Your task to perform on an android device: turn off airplane mode Image 0: 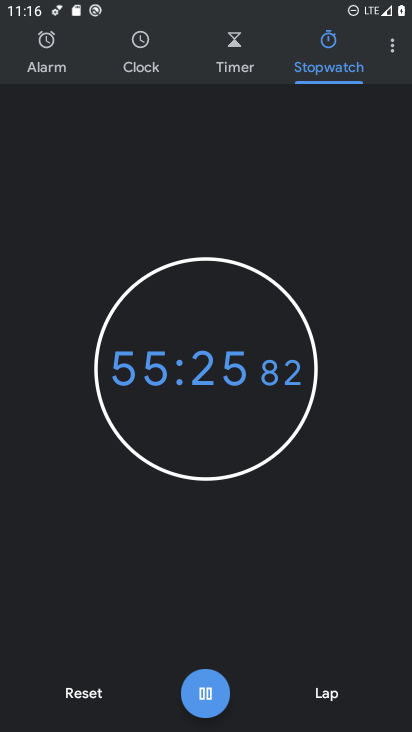
Step 0: press home button
Your task to perform on an android device: turn off airplane mode Image 1: 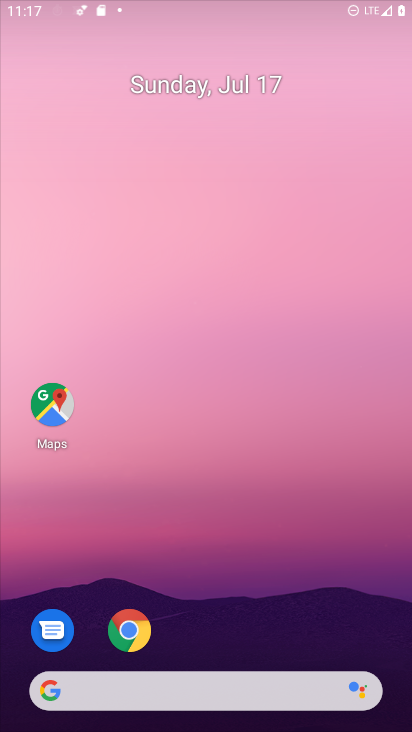
Step 1: drag from (153, 666) to (131, 41)
Your task to perform on an android device: turn off airplane mode Image 2: 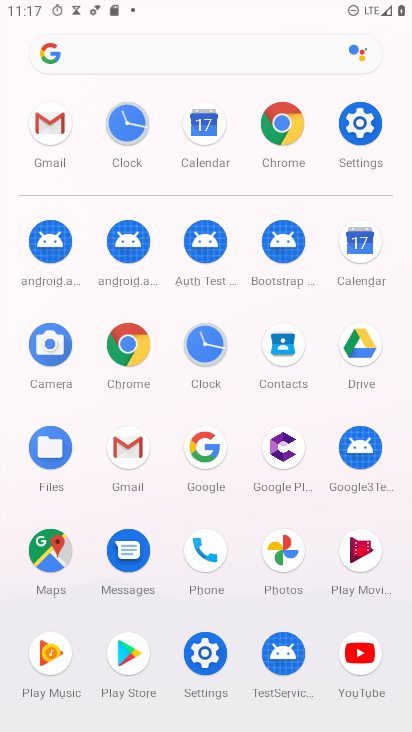
Step 2: click (369, 118)
Your task to perform on an android device: turn off airplane mode Image 3: 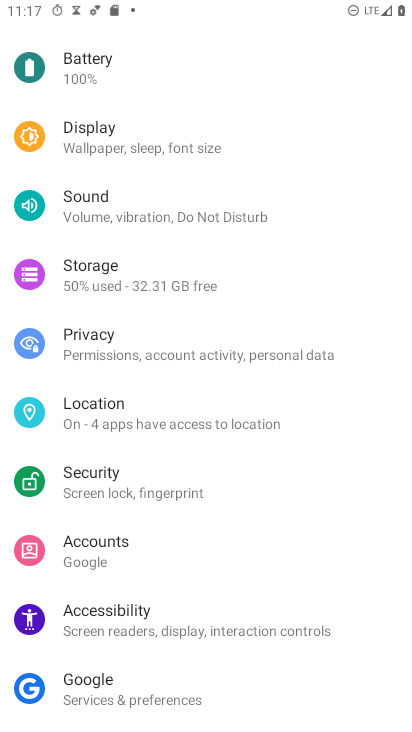
Step 3: drag from (216, 109) to (319, 718)
Your task to perform on an android device: turn off airplane mode Image 4: 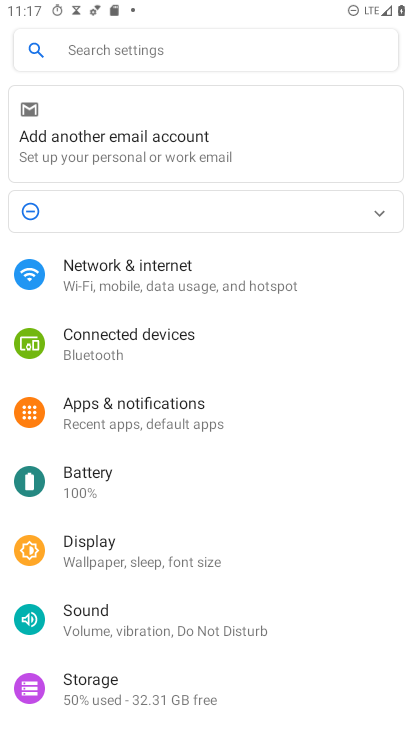
Step 4: click (168, 279)
Your task to perform on an android device: turn off airplane mode Image 5: 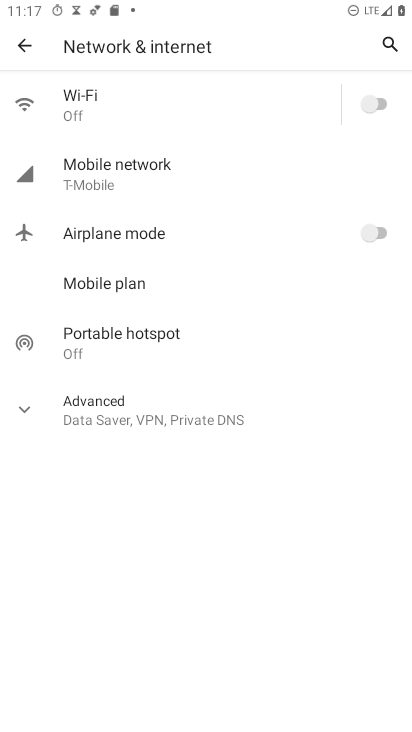
Step 5: task complete